Your task to perform on an android device: Open Wikipedia Image 0: 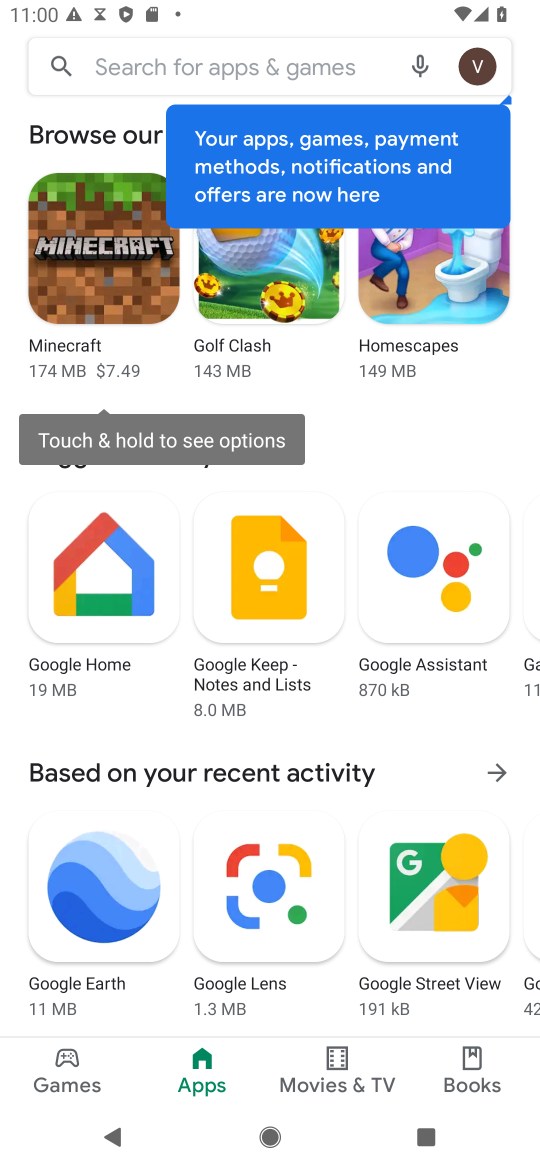
Step 0: press home button
Your task to perform on an android device: Open Wikipedia Image 1: 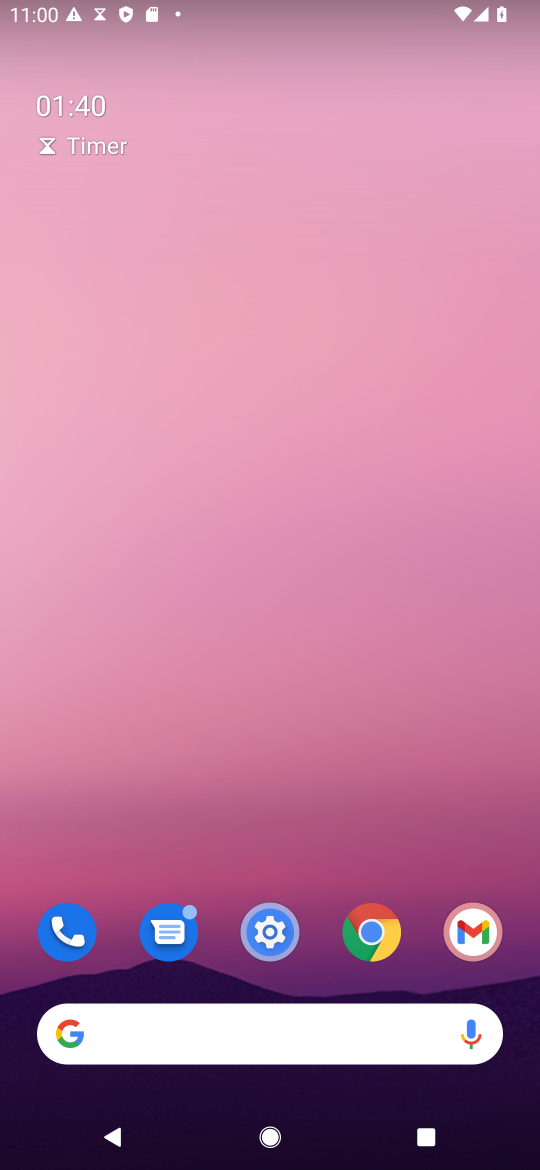
Step 1: click (377, 931)
Your task to perform on an android device: Open Wikipedia Image 2: 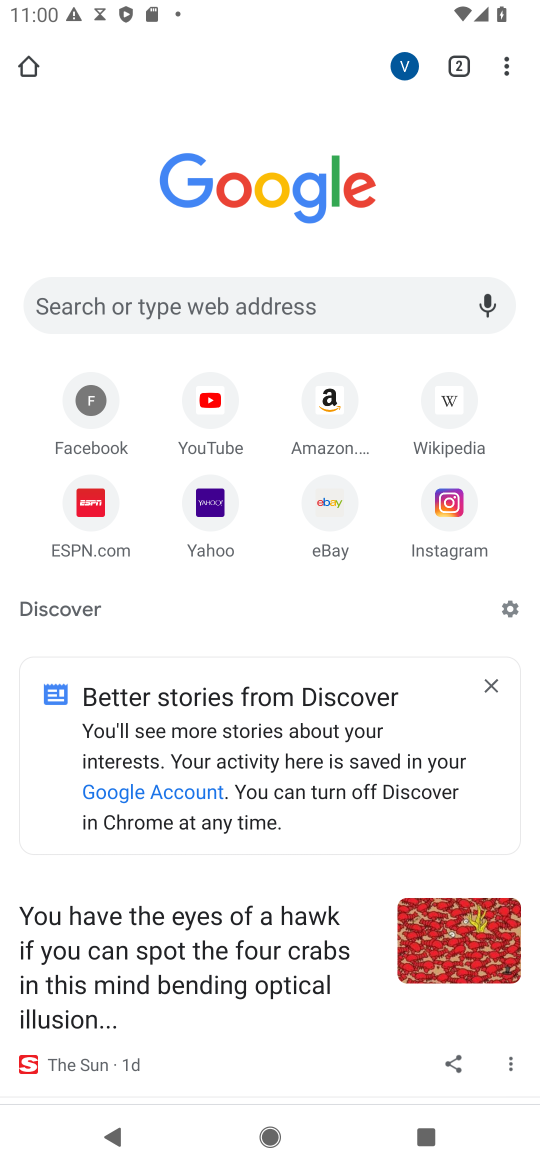
Step 2: click (456, 407)
Your task to perform on an android device: Open Wikipedia Image 3: 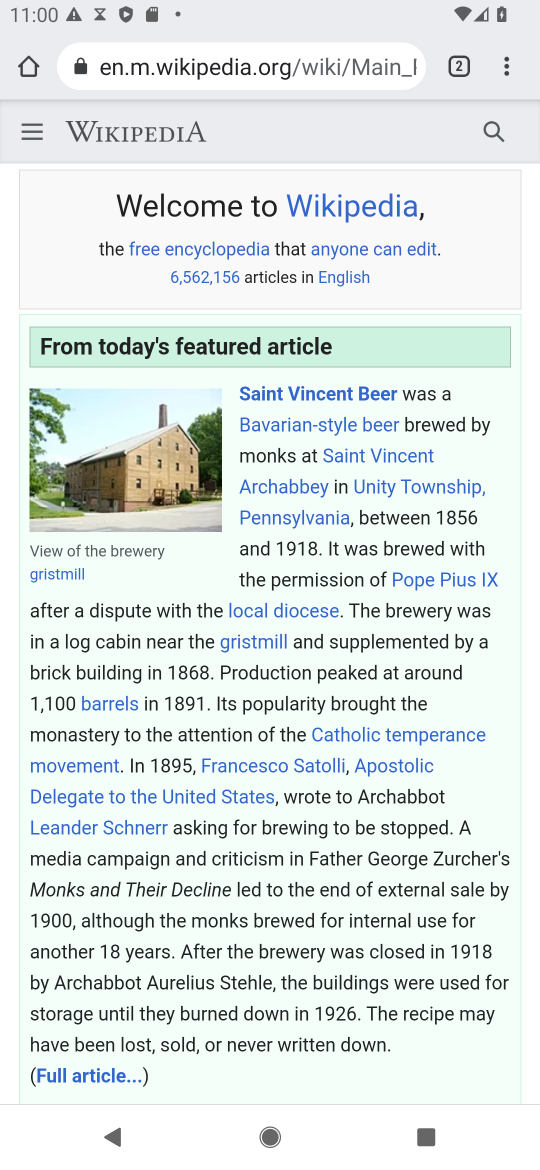
Step 3: task complete